Your task to perform on an android device: open app "Lyft - Rideshare, Bikes, Scooters & Transit" Image 0: 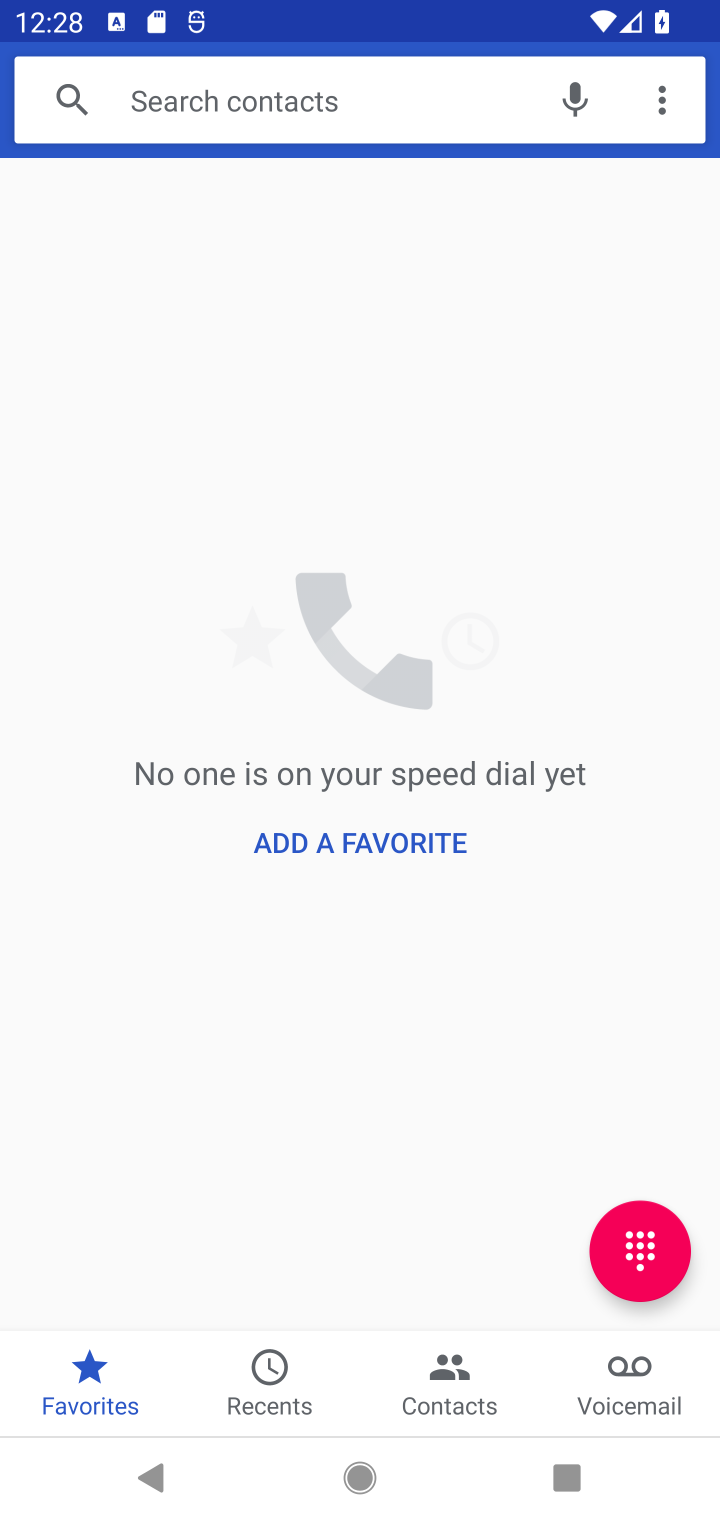
Step 0: press home button
Your task to perform on an android device: open app "Lyft - Rideshare, Bikes, Scooters & Transit" Image 1: 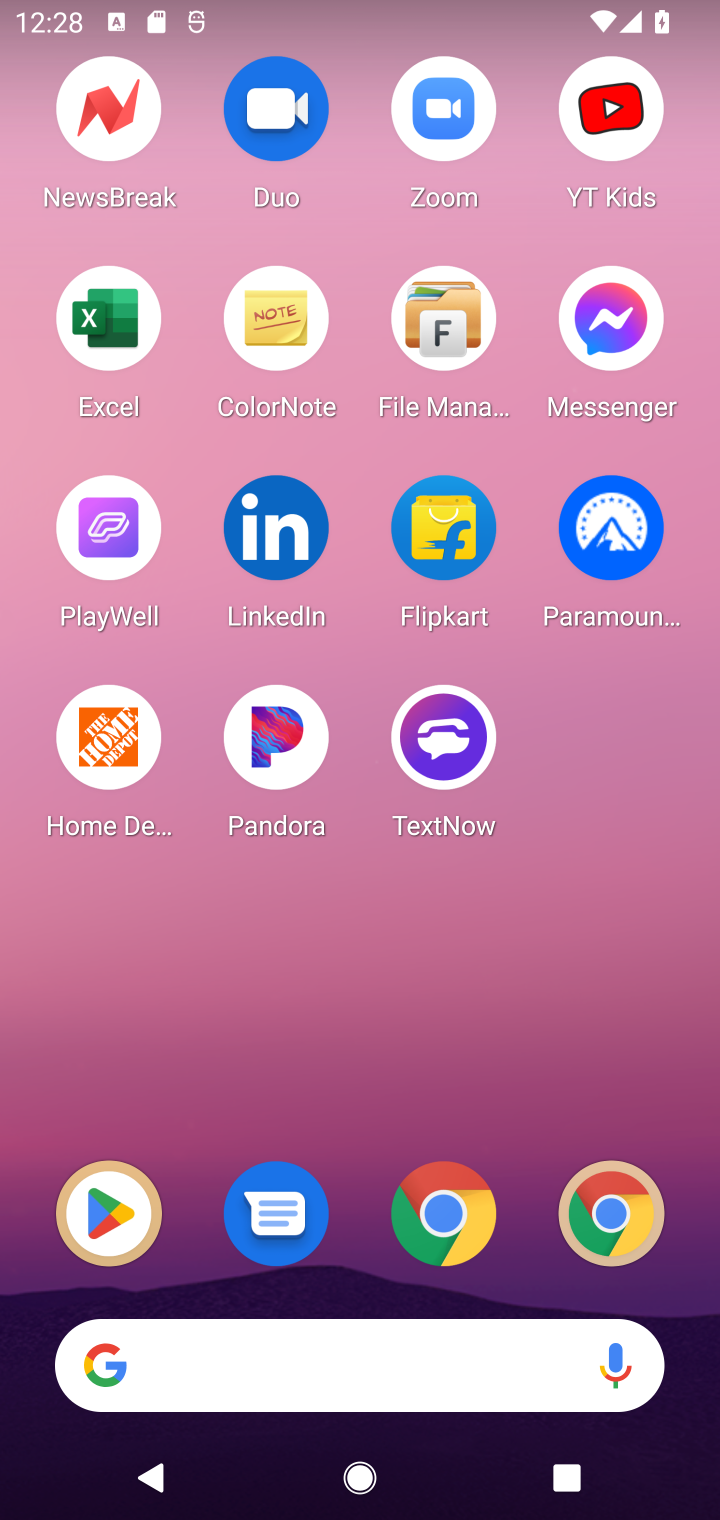
Step 1: drag from (432, 1421) to (509, 45)
Your task to perform on an android device: open app "Lyft - Rideshare, Bikes, Scooters & Transit" Image 2: 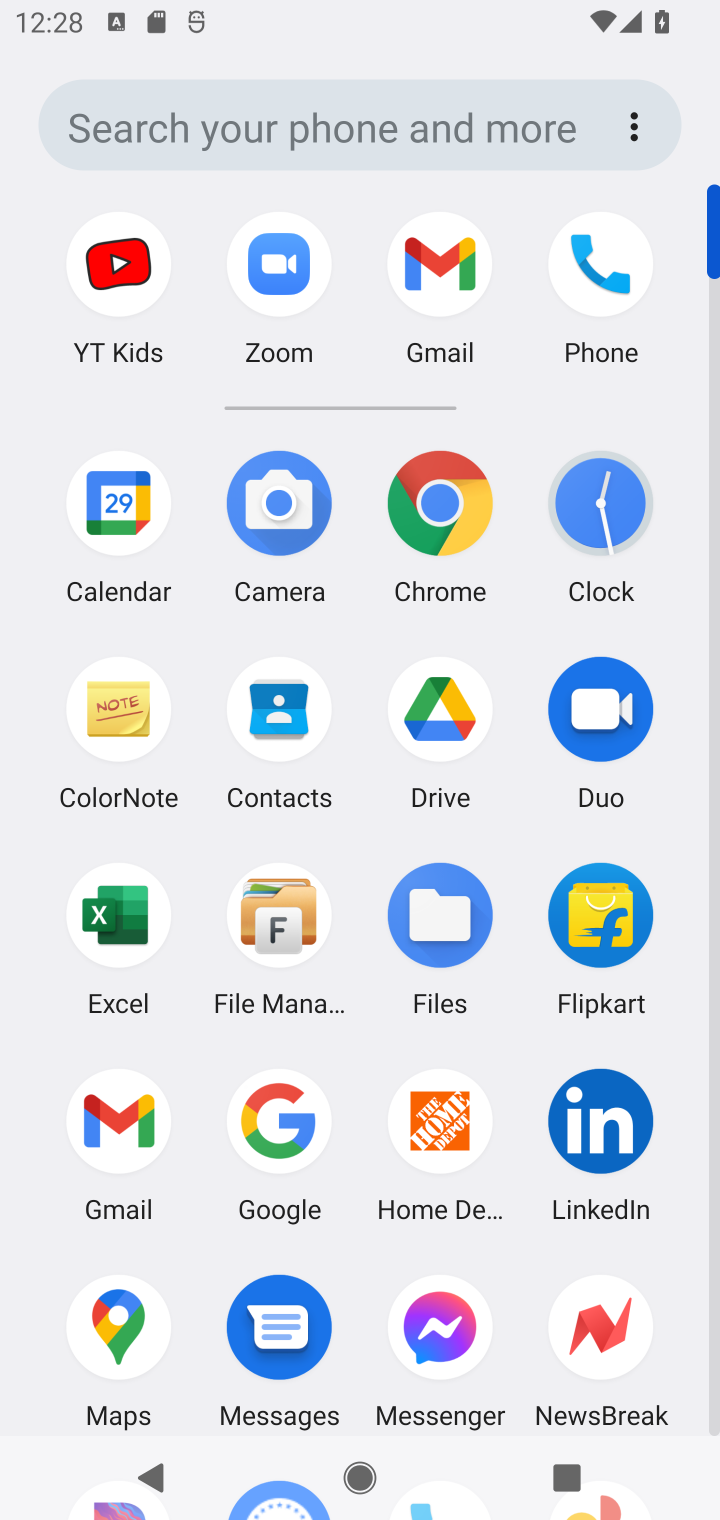
Step 2: drag from (376, 1119) to (401, 189)
Your task to perform on an android device: open app "Lyft - Rideshare, Bikes, Scooters & Transit" Image 3: 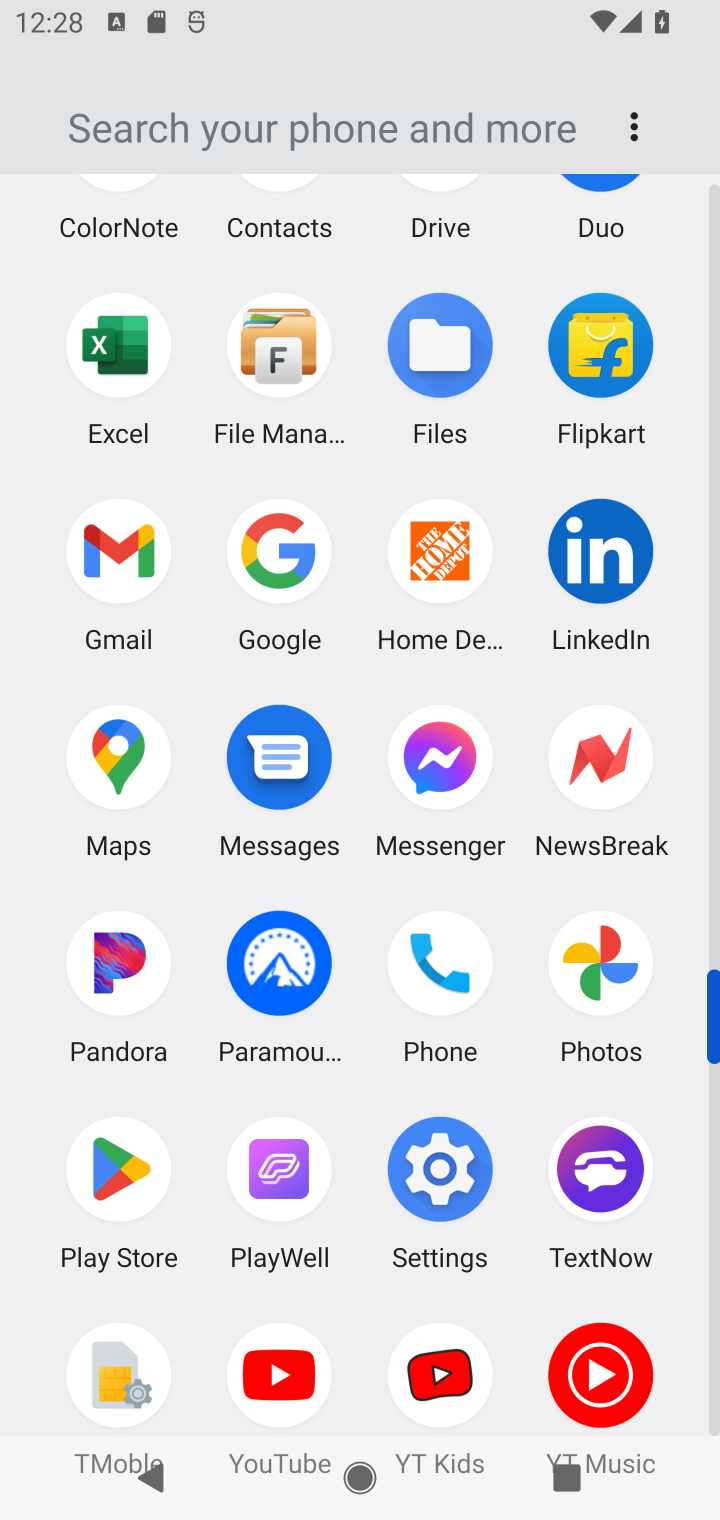
Step 3: click (116, 1160)
Your task to perform on an android device: open app "Lyft - Rideshare, Bikes, Scooters & Transit" Image 4: 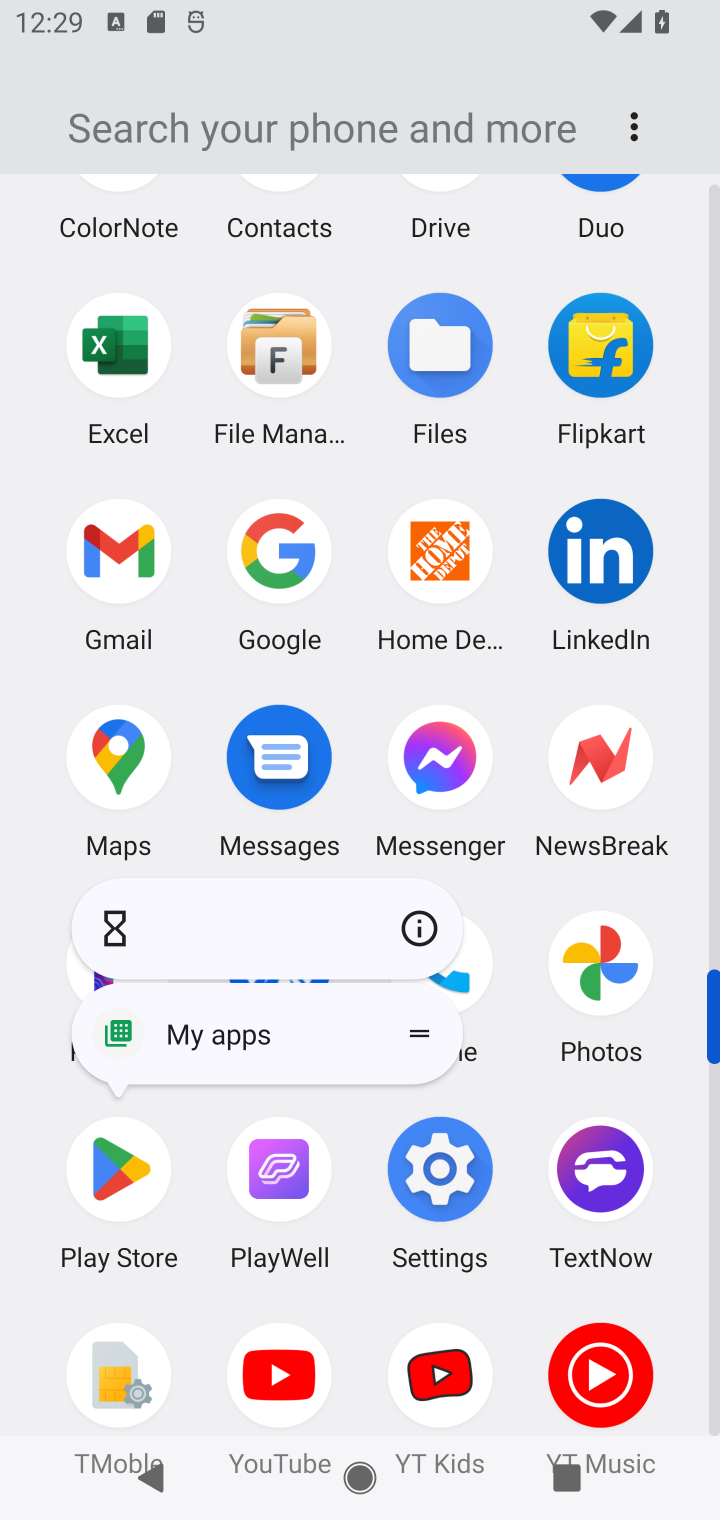
Step 4: click (117, 1173)
Your task to perform on an android device: open app "Lyft - Rideshare, Bikes, Scooters & Transit" Image 5: 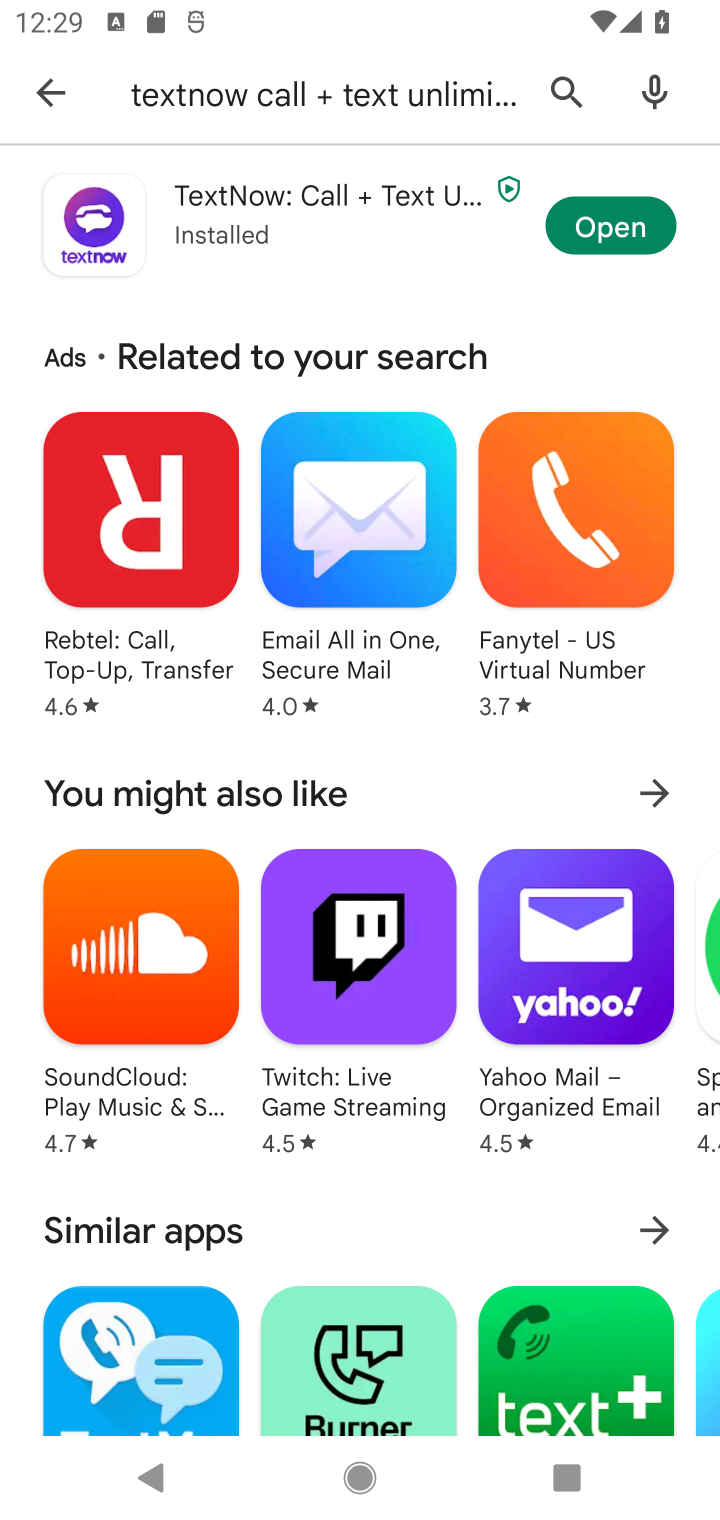
Step 5: click (572, 86)
Your task to perform on an android device: open app "Lyft - Rideshare, Bikes, Scooters & Transit" Image 6: 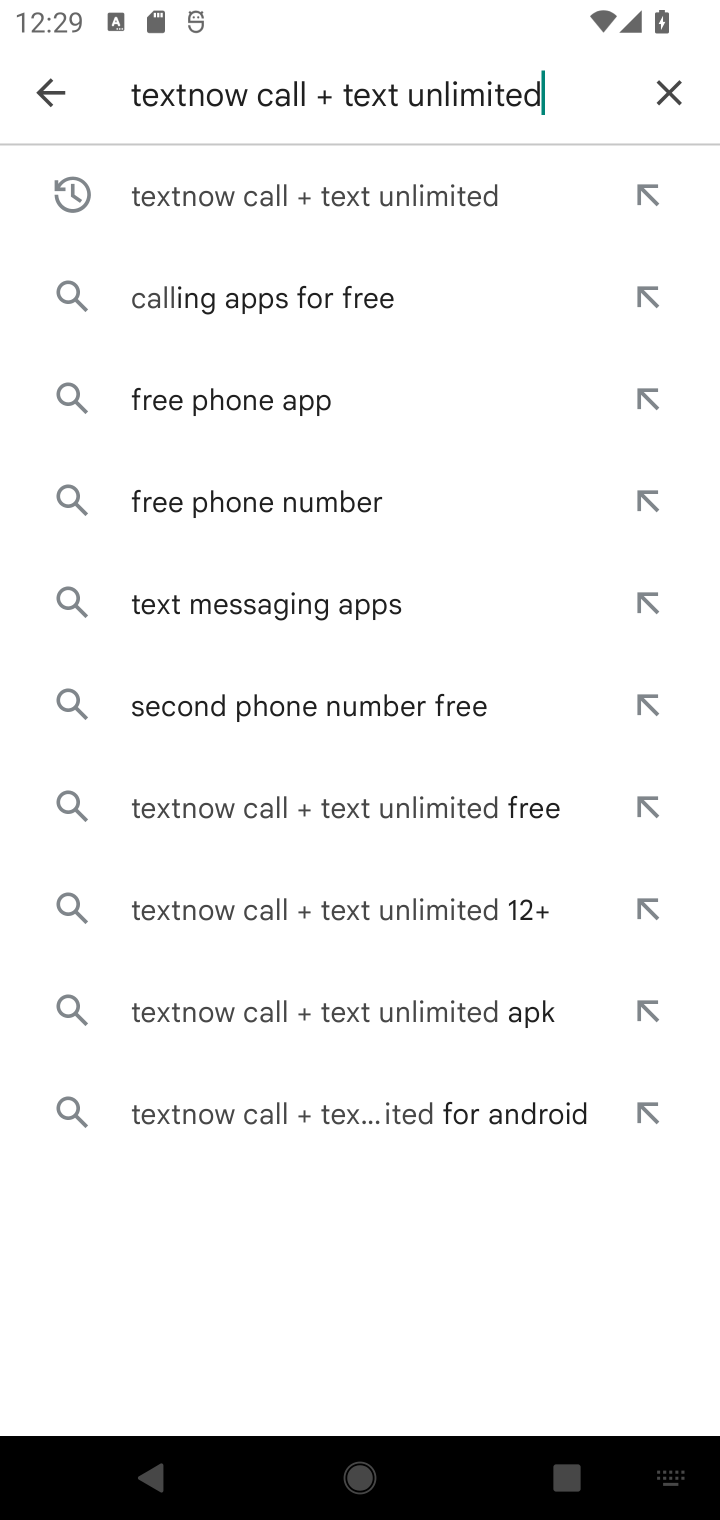
Step 6: click (673, 84)
Your task to perform on an android device: open app "Lyft - Rideshare, Bikes, Scooters & Transit" Image 7: 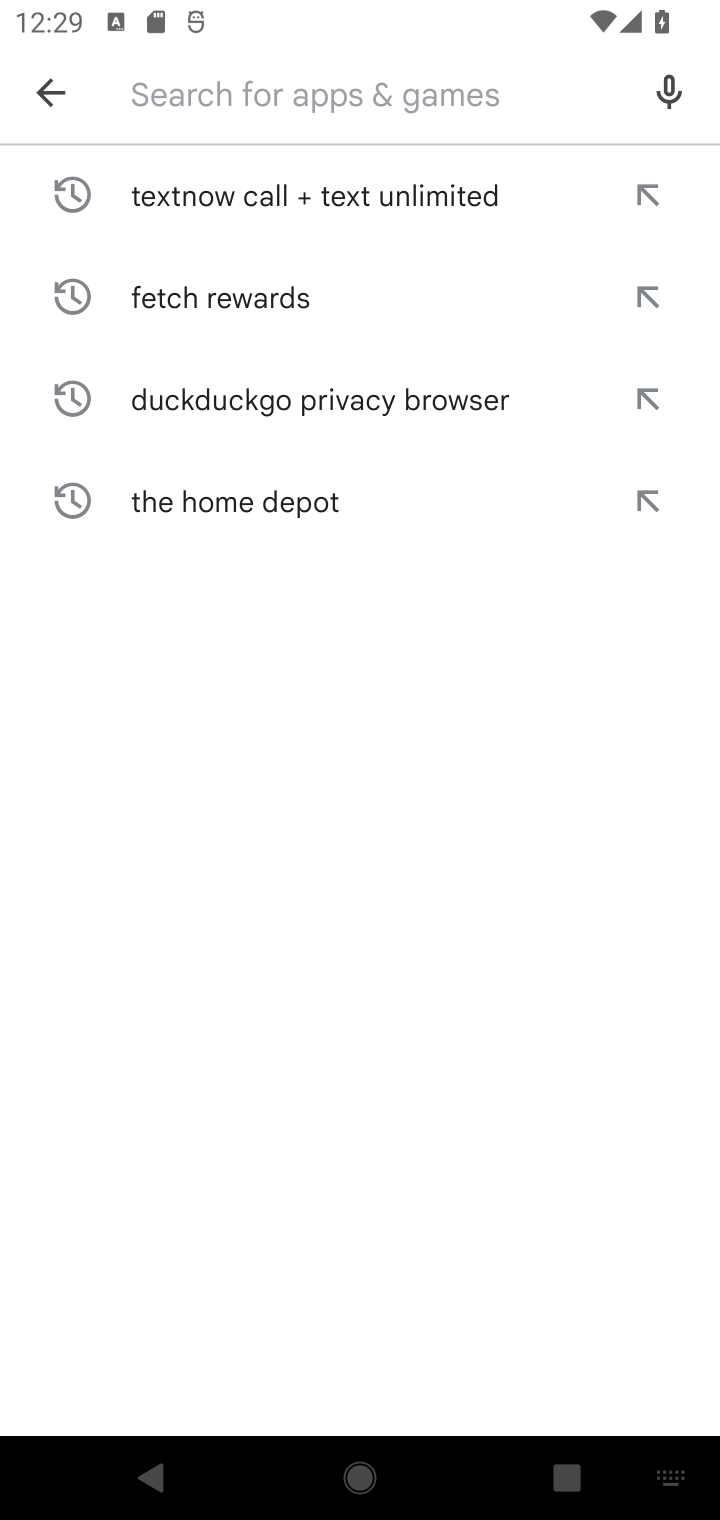
Step 7: type "Lyft - Rideshare, Bikes, Scooters & Transit"
Your task to perform on an android device: open app "Lyft - Rideshare, Bikes, Scooters & Transit" Image 8: 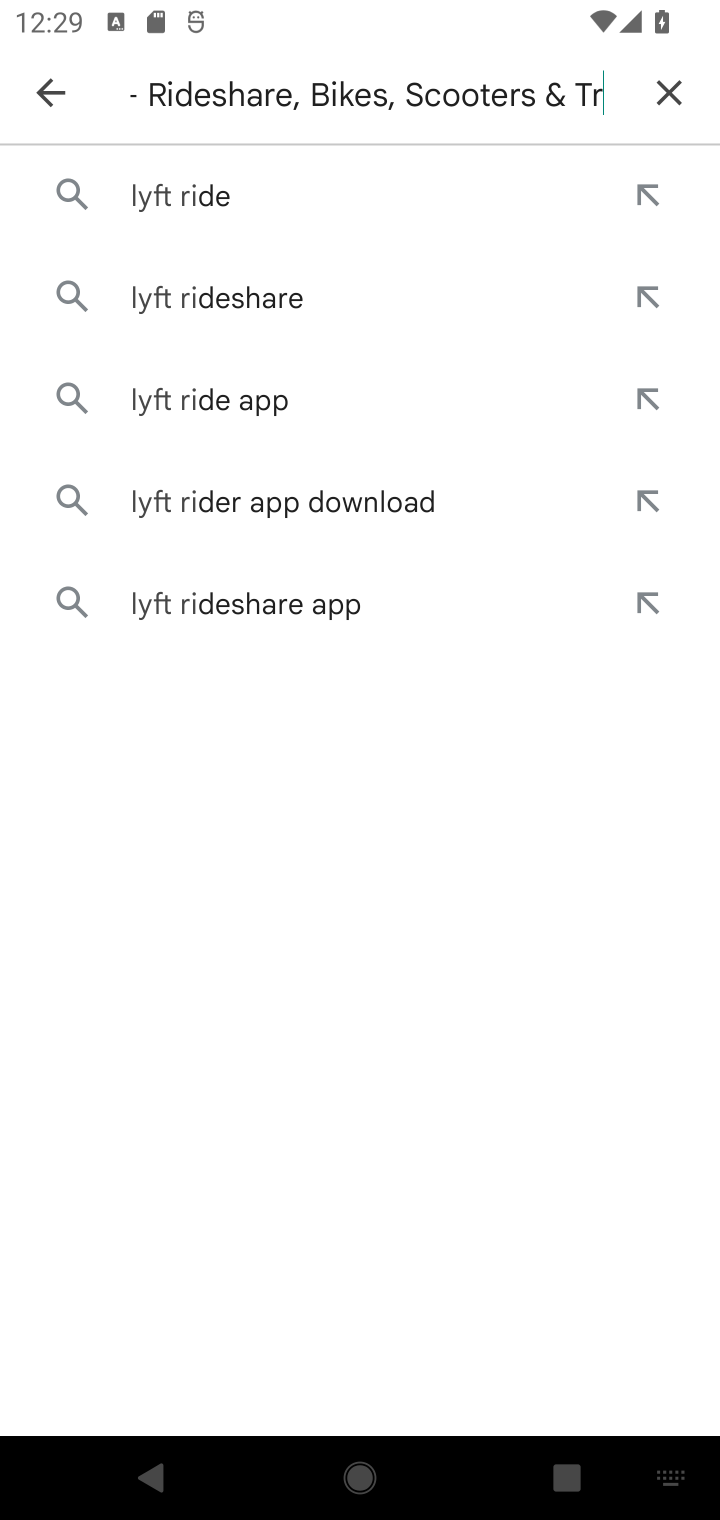
Step 8: type ""
Your task to perform on an android device: open app "Lyft - Rideshare, Bikes, Scooters & Transit" Image 9: 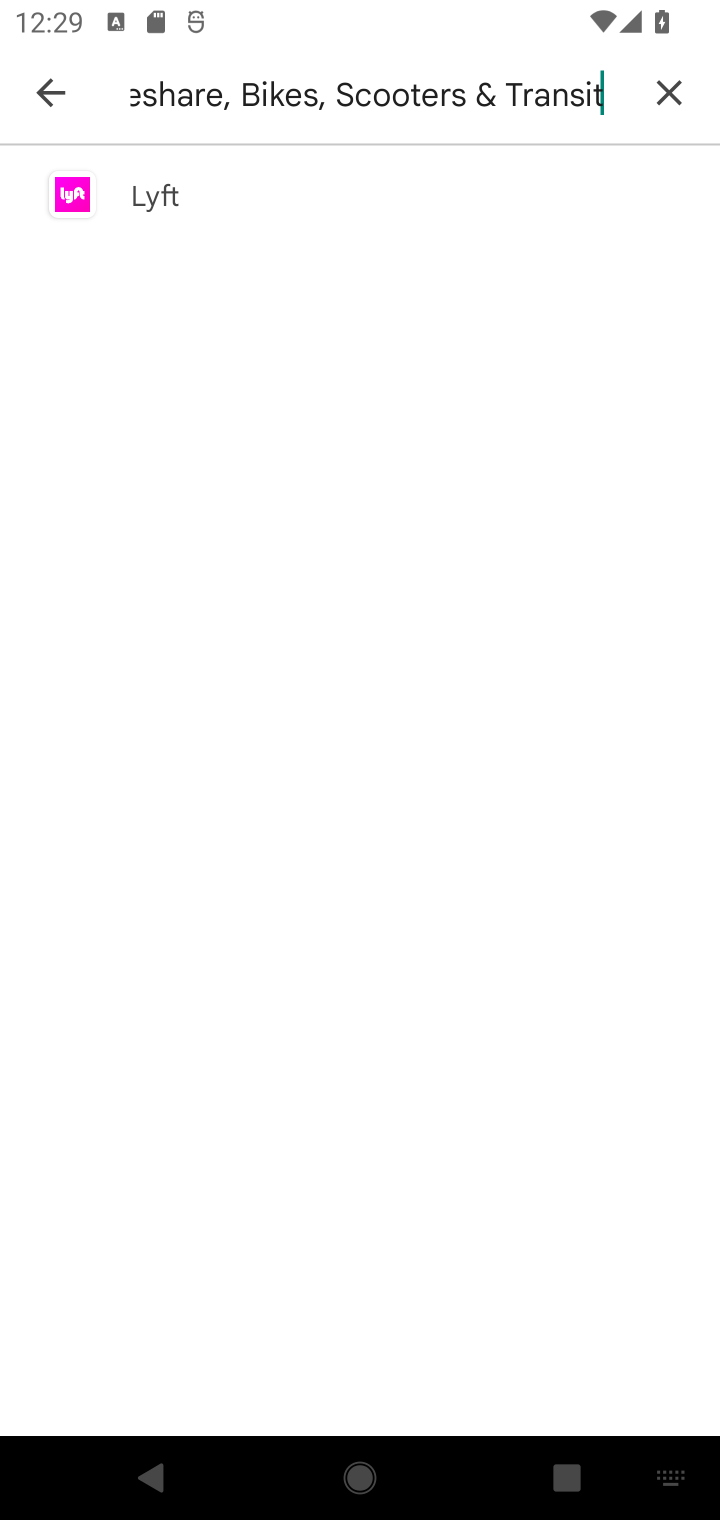
Step 9: click (146, 203)
Your task to perform on an android device: open app "Lyft - Rideshare, Bikes, Scooters & Transit" Image 10: 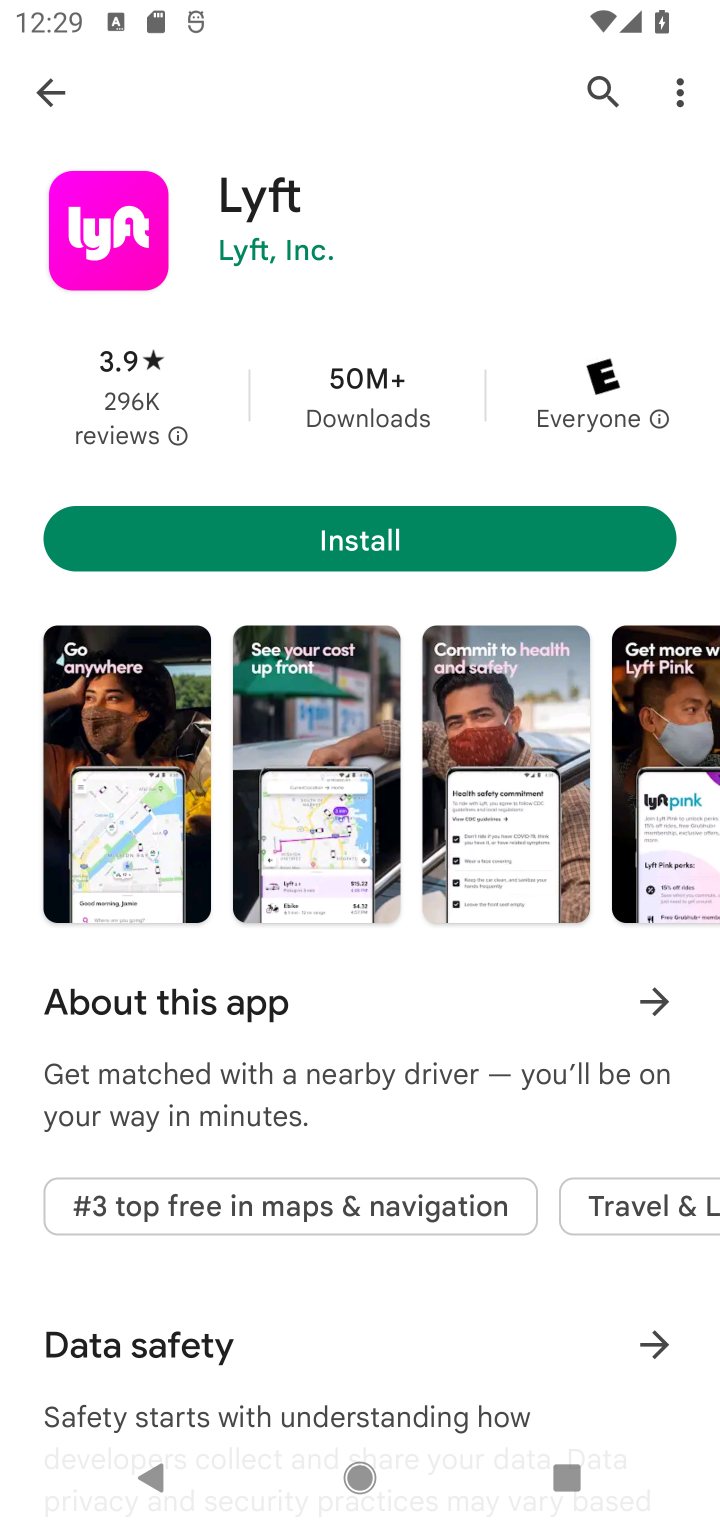
Step 10: task complete